Your task to perform on an android device: What's the latest news in space? Image 0: 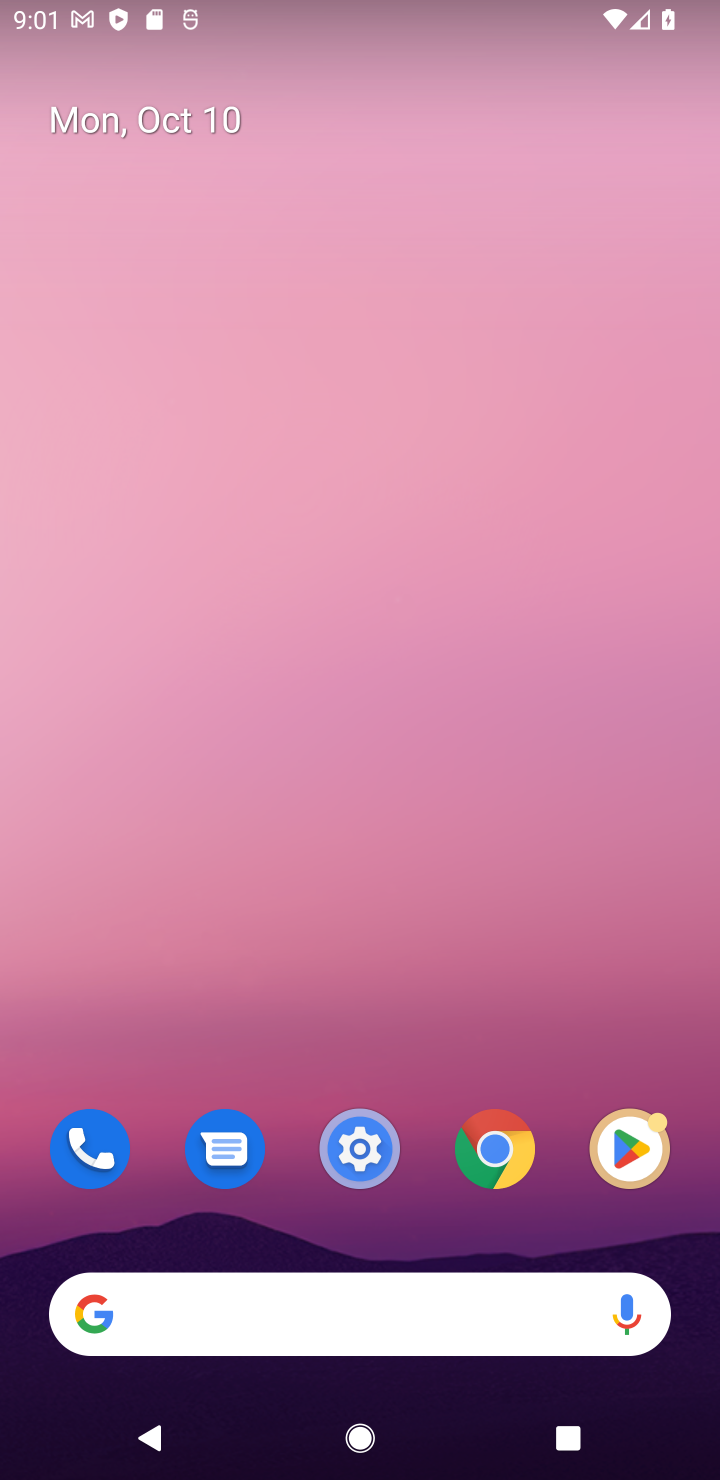
Step 0: click (381, 1340)
Your task to perform on an android device: What's the latest news in space? Image 1: 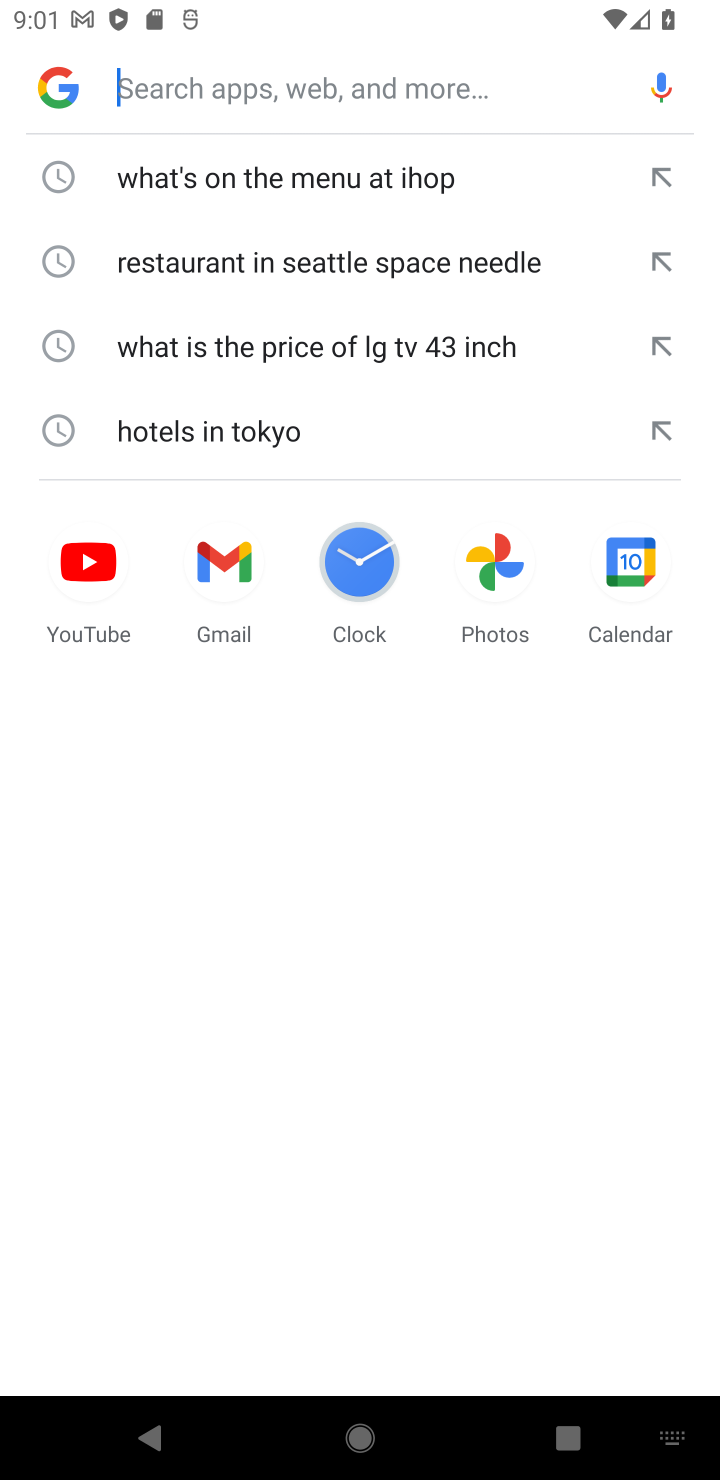
Step 1: type "What's the latest news in space?"
Your task to perform on an android device: What's the latest news in space? Image 2: 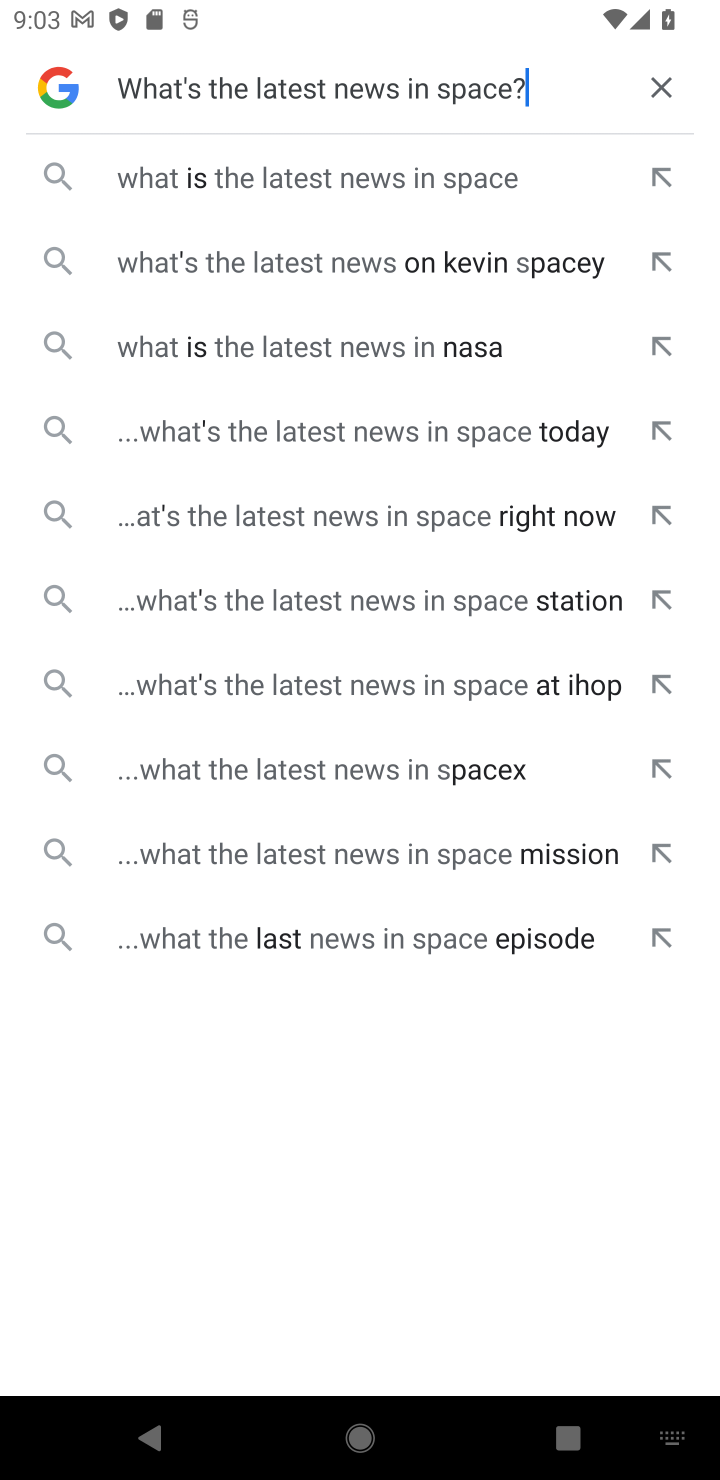
Step 2: click (397, 201)
Your task to perform on an android device: What's the latest news in space? Image 3: 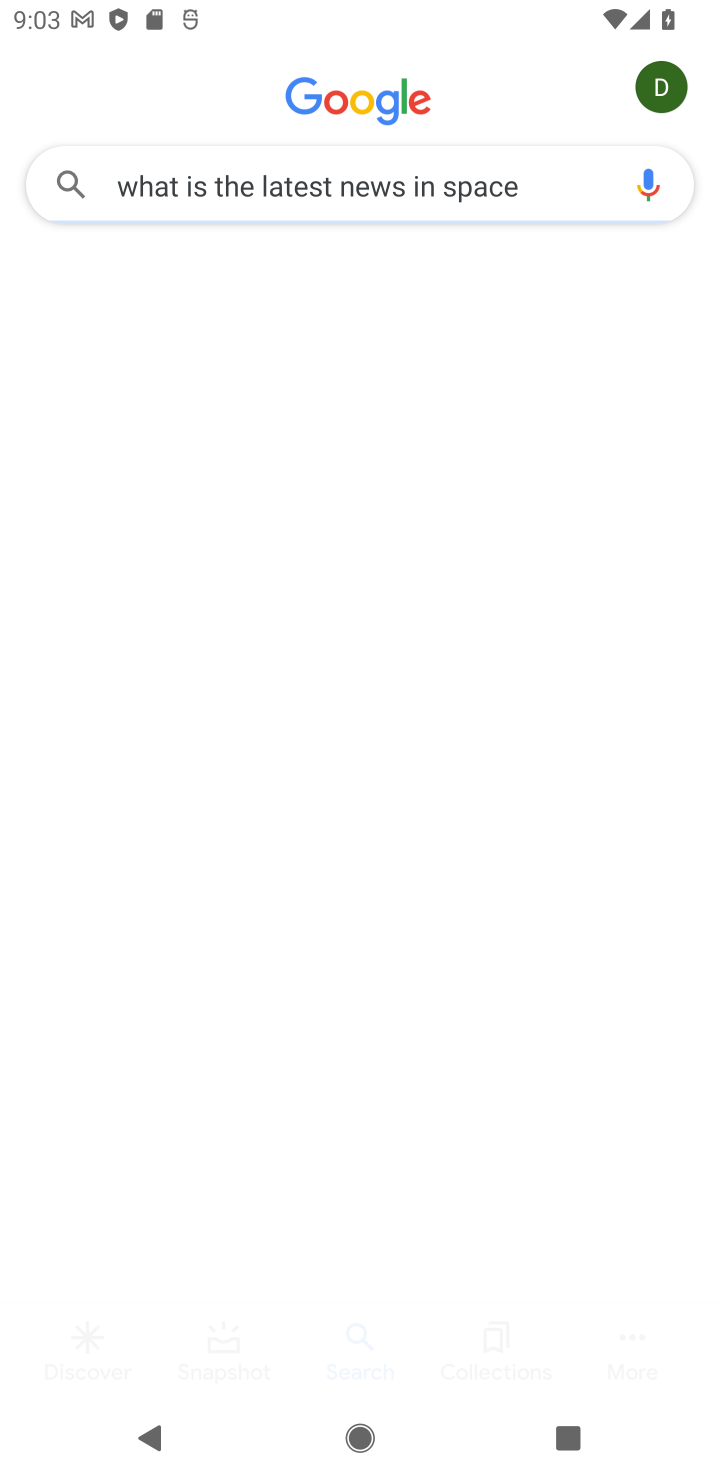
Step 3: task complete